Your task to perform on an android device: Open maps Image 0: 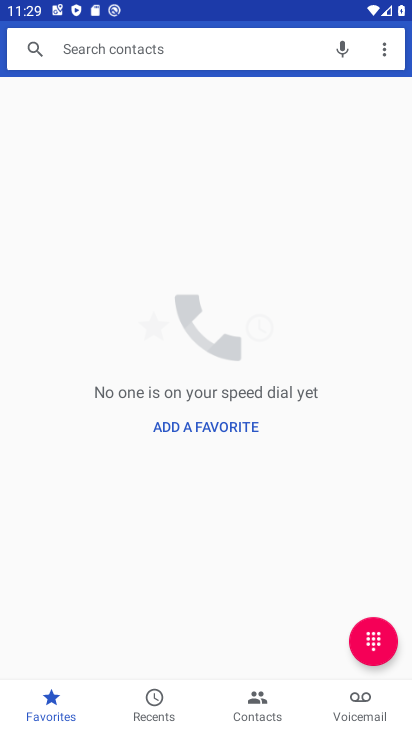
Step 0: press home button
Your task to perform on an android device: Open maps Image 1: 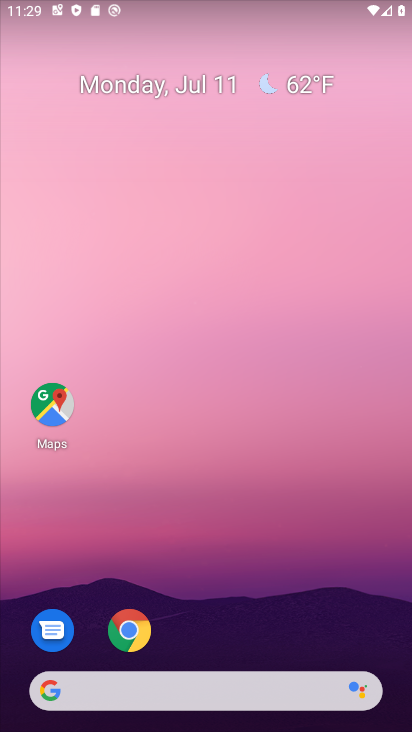
Step 1: drag from (250, 701) to (326, 10)
Your task to perform on an android device: Open maps Image 2: 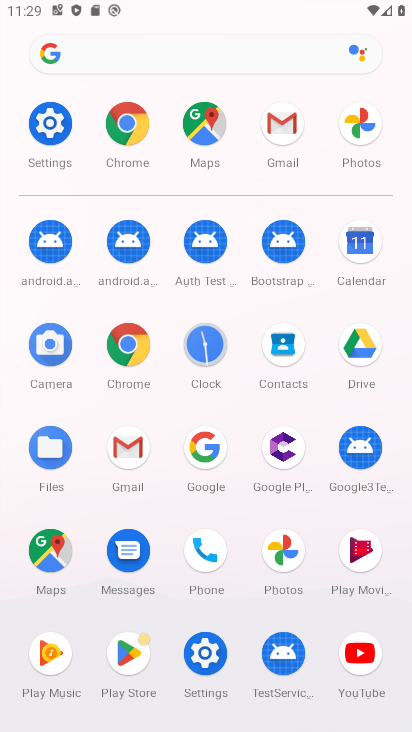
Step 2: click (202, 120)
Your task to perform on an android device: Open maps Image 3: 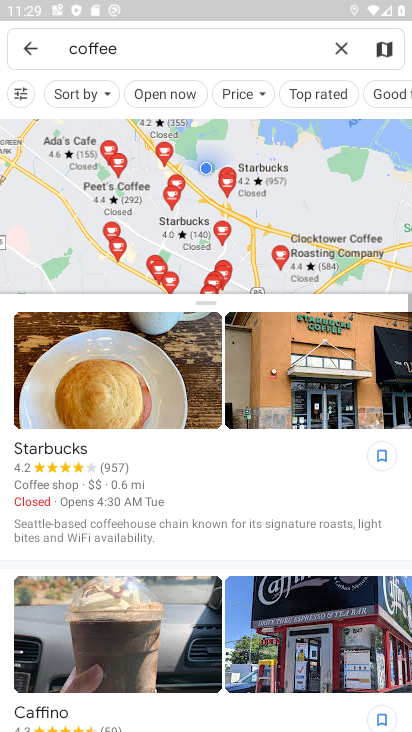
Step 3: task complete